Your task to perform on an android device: Open Android settings Image 0: 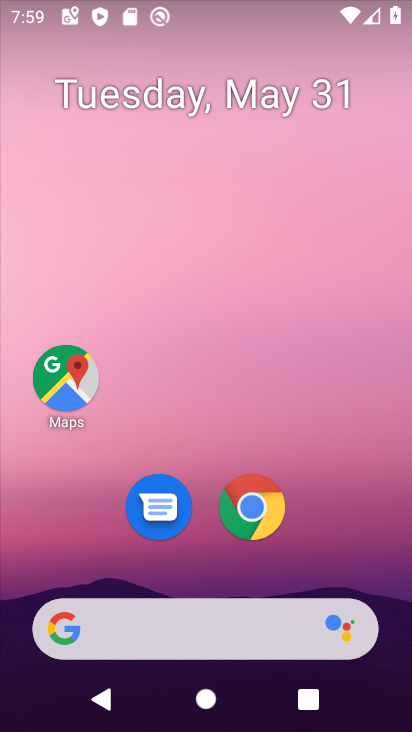
Step 0: click (242, 502)
Your task to perform on an android device: Open Android settings Image 1: 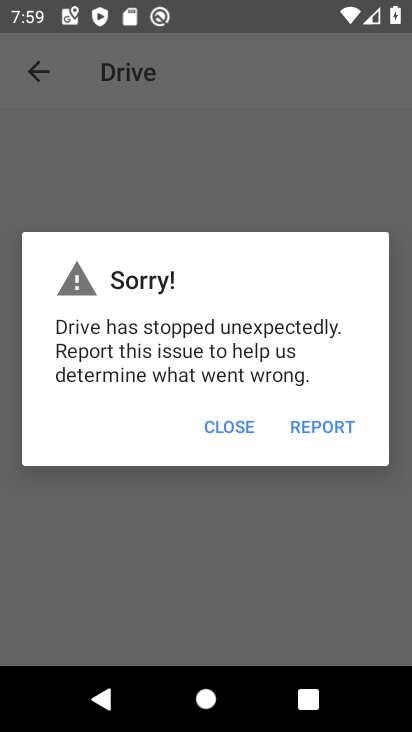
Step 1: press home button
Your task to perform on an android device: Open Android settings Image 2: 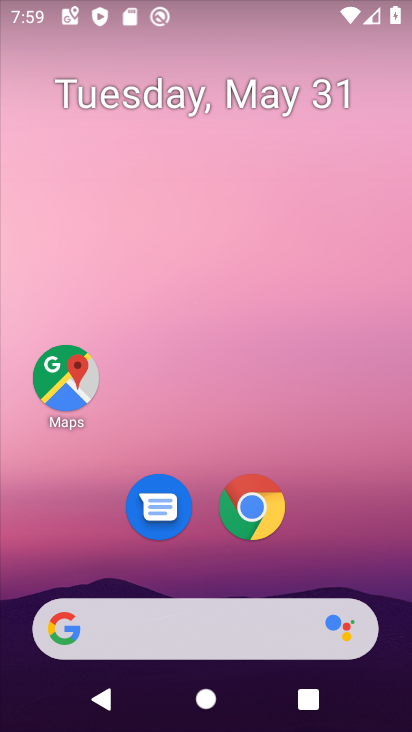
Step 2: drag from (17, 625) to (252, 118)
Your task to perform on an android device: Open Android settings Image 3: 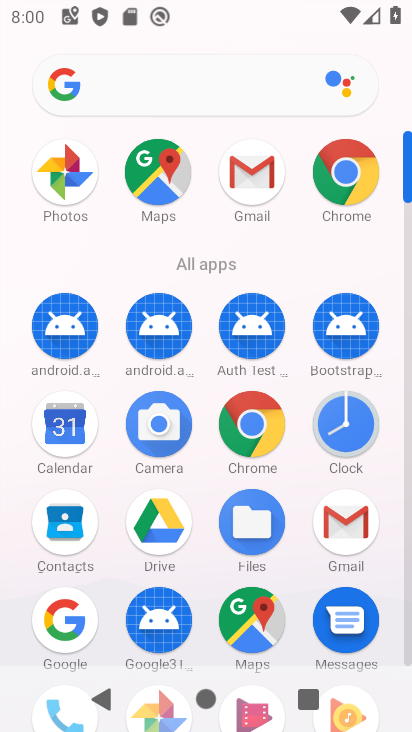
Step 3: drag from (25, 690) to (270, 86)
Your task to perform on an android device: Open Android settings Image 4: 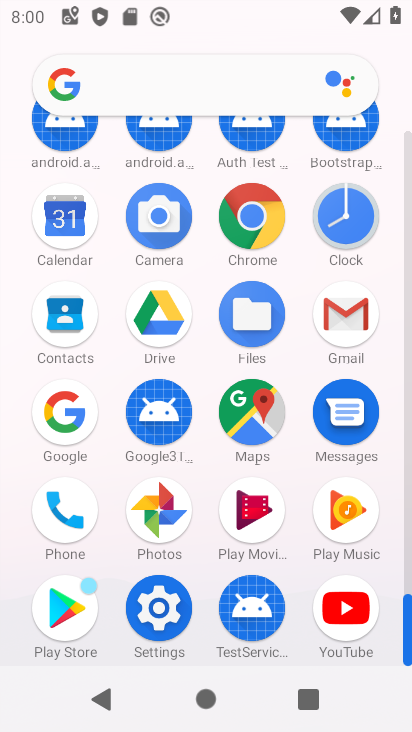
Step 4: click (137, 608)
Your task to perform on an android device: Open Android settings Image 5: 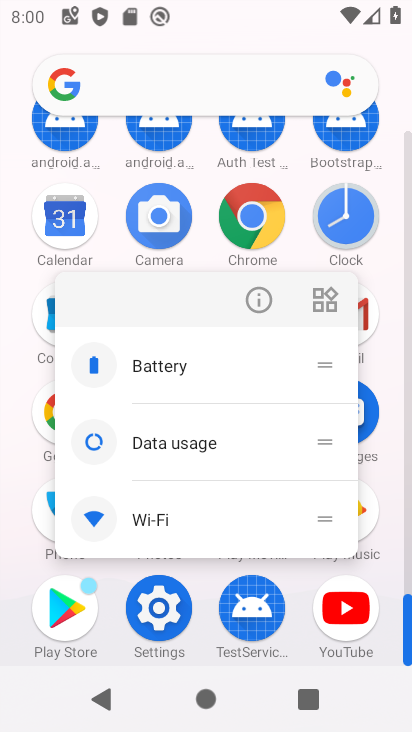
Step 5: click (166, 599)
Your task to perform on an android device: Open Android settings Image 6: 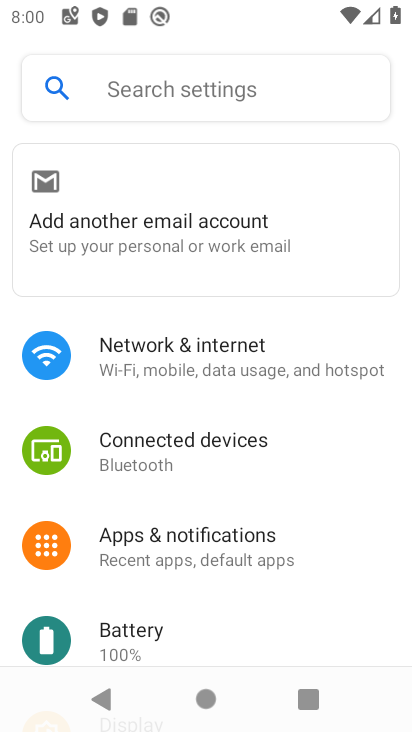
Step 6: drag from (23, 474) to (194, 185)
Your task to perform on an android device: Open Android settings Image 7: 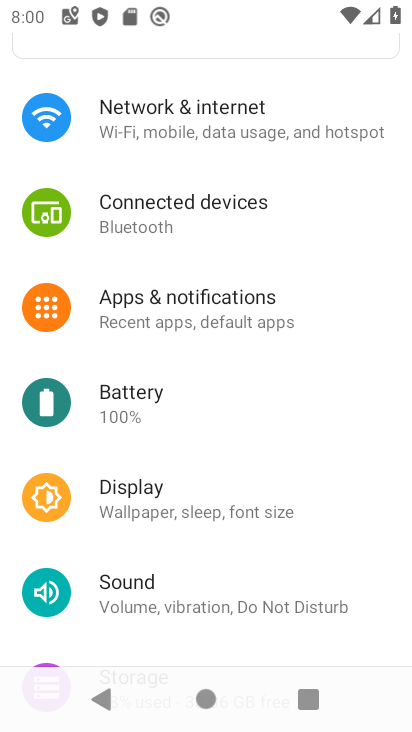
Step 7: drag from (7, 568) to (256, 177)
Your task to perform on an android device: Open Android settings Image 8: 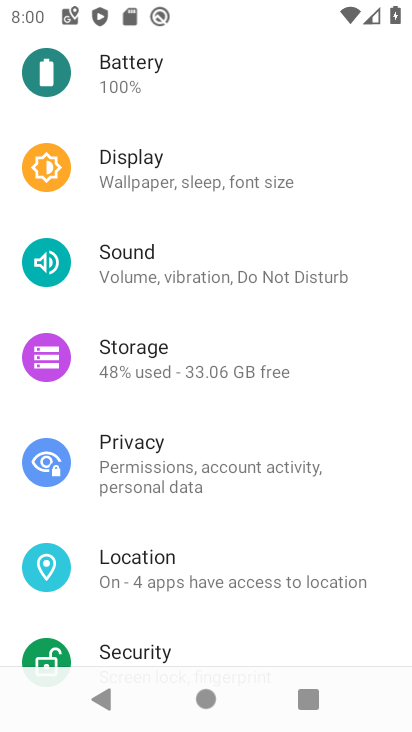
Step 8: drag from (0, 488) to (226, 191)
Your task to perform on an android device: Open Android settings Image 9: 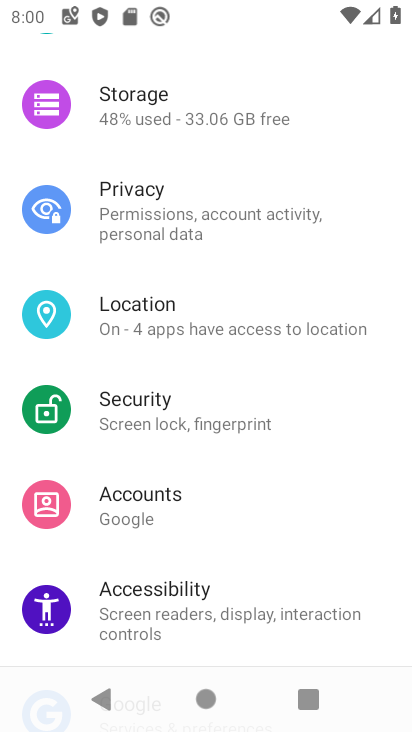
Step 9: drag from (27, 544) to (225, 229)
Your task to perform on an android device: Open Android settings Image 10: 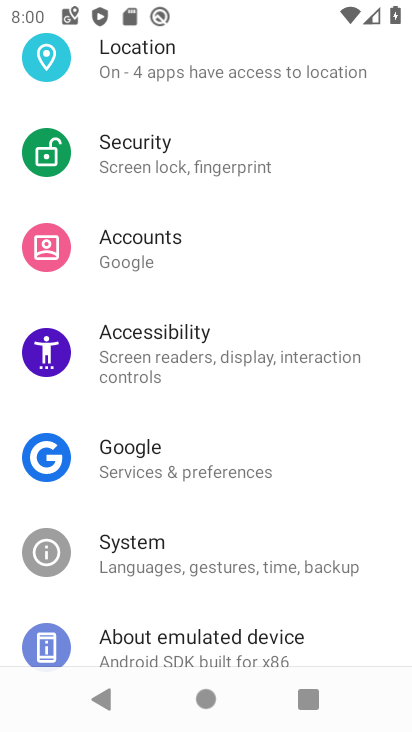
Step 10: click (141, 631)
Your task to perform on an android device: Open Android settings Image 11: 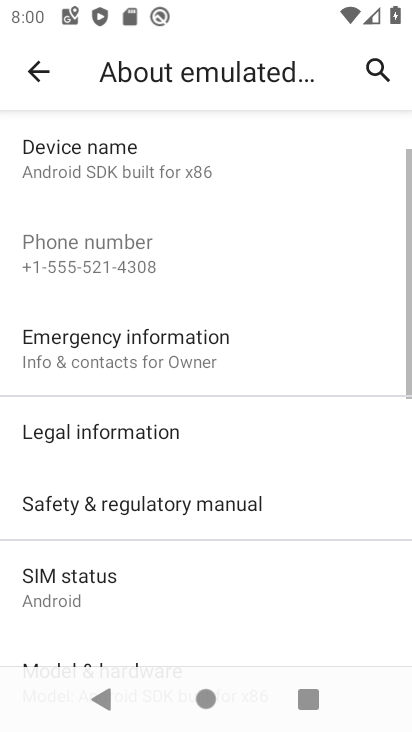
Step 11: task complete